Your task to perform on an android device: Open Chrome and go to the settings page Image 0: 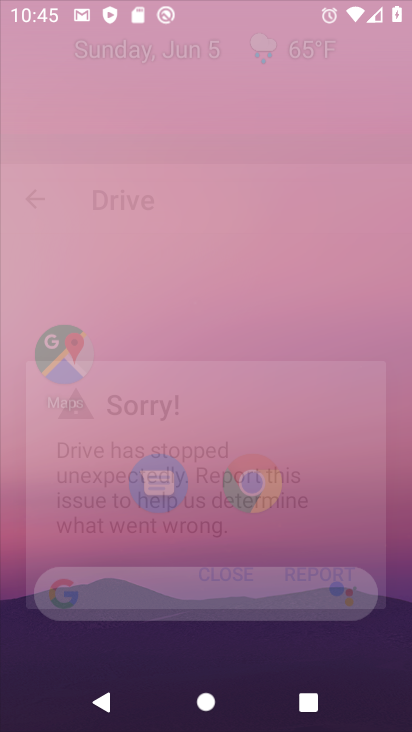
Step 0: drag from (22, 641) to (327, 157)
Your task to perform on an android device: Open Chrome and go to the settings page Image 1: 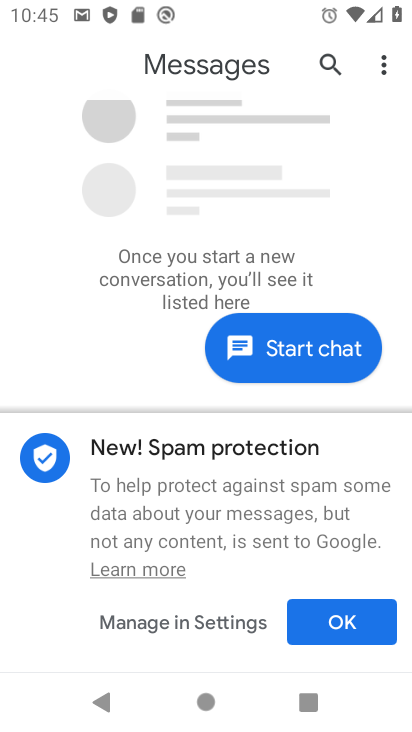
Step 1: press home button
Your task to perform on an android device: Open Chrome and go to the settings page Image 2: 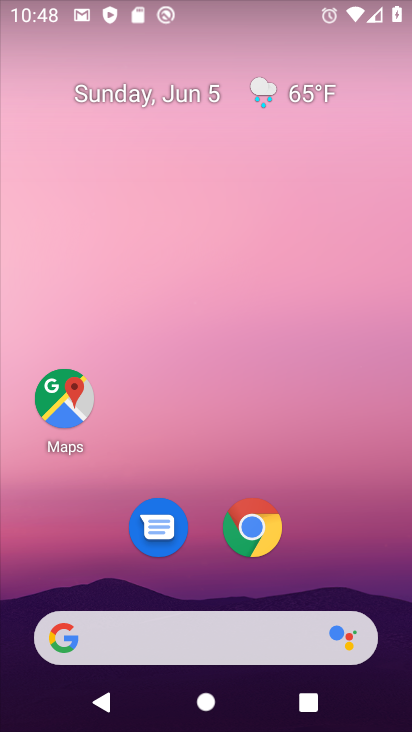
Step 2: click (246, 528)
Your task to perform on an android device: Open Chrome and go to the settings page Image 3: 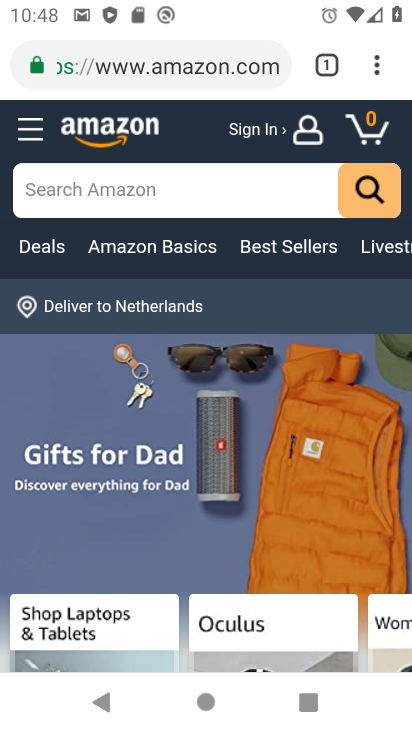
Step 3: click (376, 70)
Your task to perform on an android device: Open Chrome and go to the settings page Image 4: 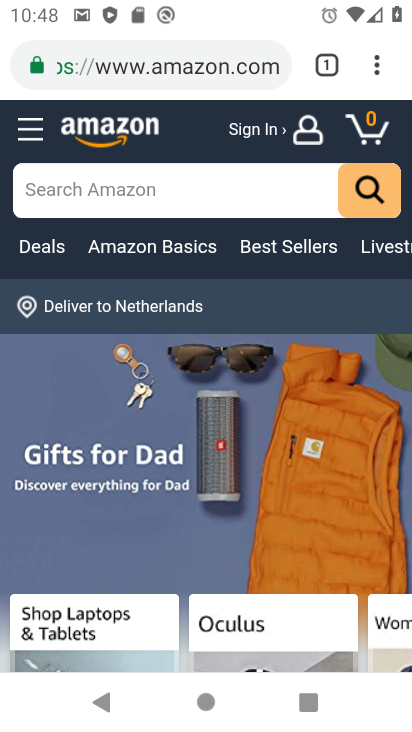
Step 4: click (376, 64)
Your task to perform on an android device: Open Chrome and go to the settings page Image 5: 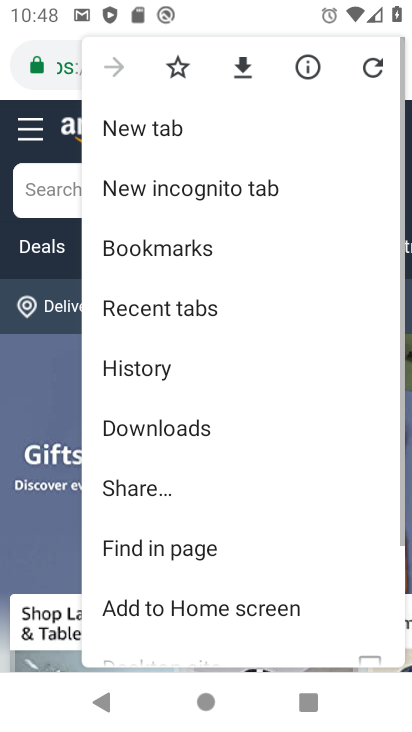
Step 5: drag from (145, 619) to (313, 40)
Your task to perform on an android device: Open Chrome and go to the settings page Image 6: 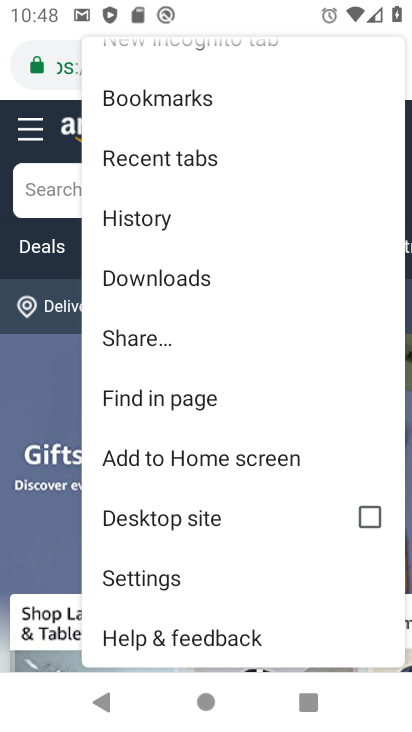
Step 6: click (139, 576)
Your task to perform on an android device: Open Chrome and go to the settings page Image 7: 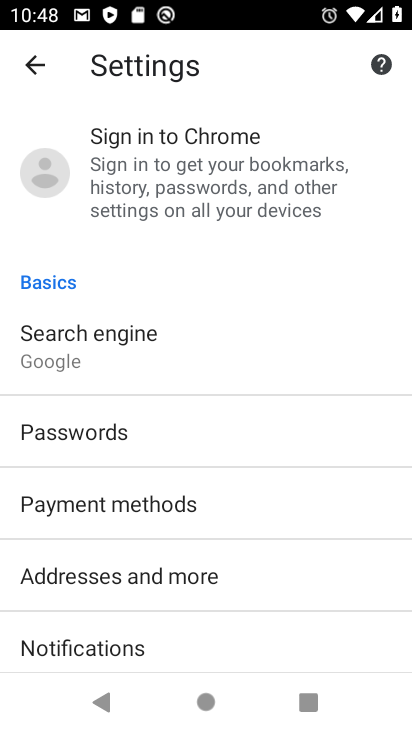
Step 7: task complete